Your task to perform on an android device: delete the emails in spam in the gmail app Image 0: 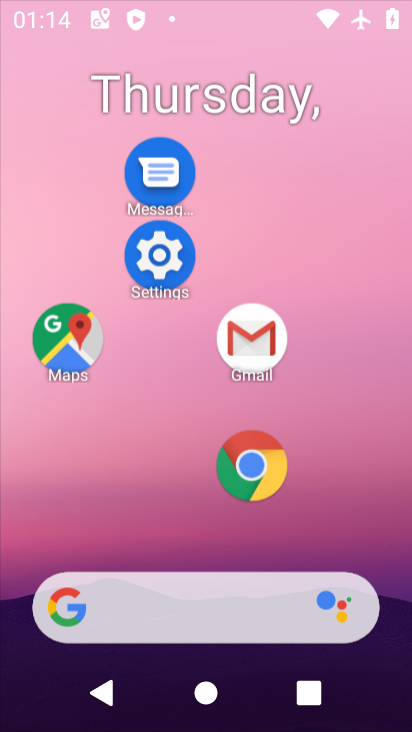
Step 0: click (203, 99)
Your task to perform on an android device: delete the emails in spam in the gmail app Image 1: 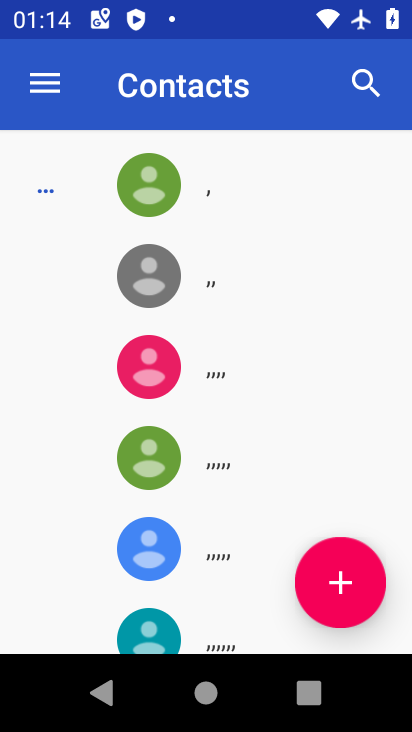
Step 1: drag from (221, 568) to (223, 193)
Your task to perform on an android device: delete the emails in spam in the gmail app Image 2: 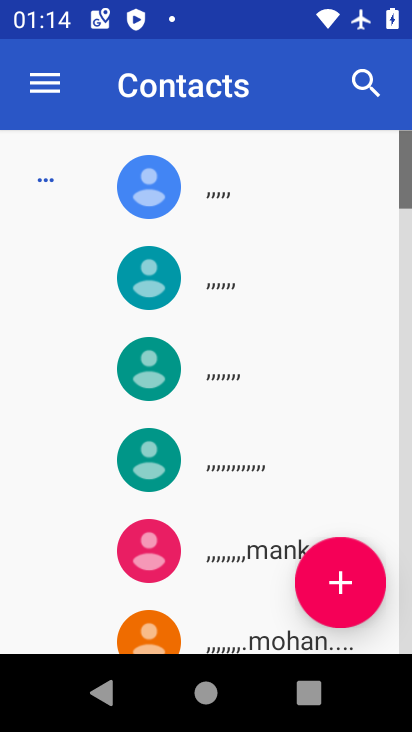
Step 2: press home button
Your task to perform on an android device: delete the emails in spam in the gmail app Image 3: 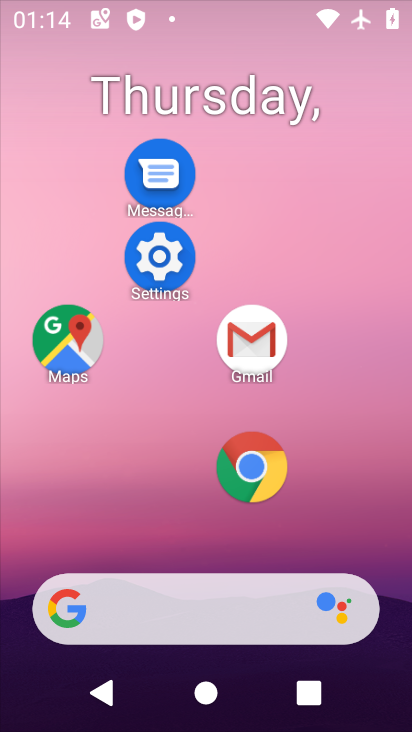
Step 3: drag from (225, 590) to (272, 118)
Your task to perform on an android device: delete the emails in spam in the gmail app Image 4: 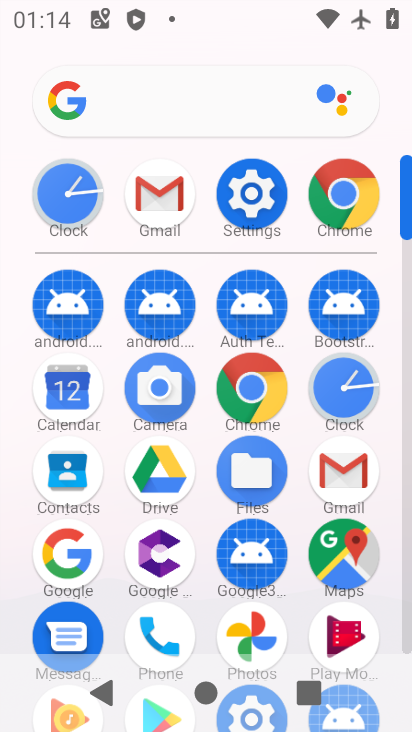
Step 4: click (349, 470)
Your task to perform on an android device: delete the emails in spam in the gmail app Image 5: 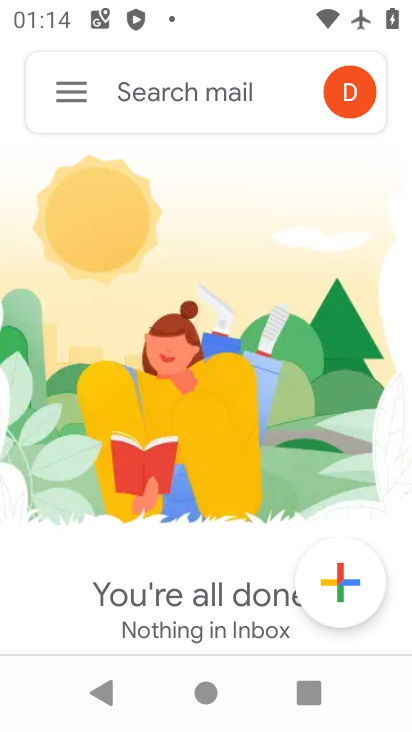
Step 5: drag from (200, 632) to (226, 182)
Your task to perform on an android device: delete the emails in spam in the gmail app Image 6: 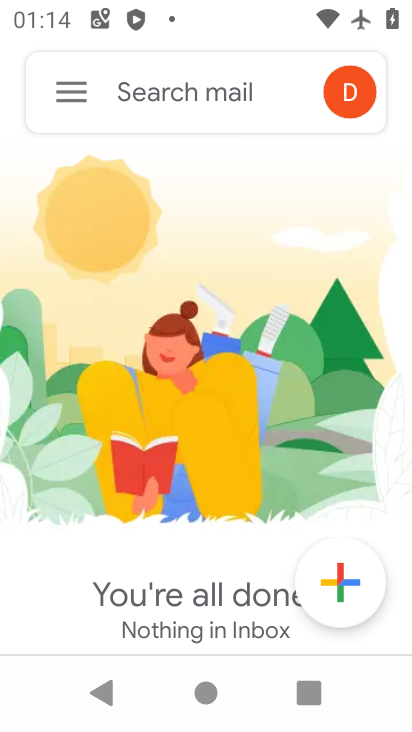
Step 6: drag from (171, 616) to (231, 208)
Your task to perform on an android device: delete the emails in spam in the gmail app Image 7: 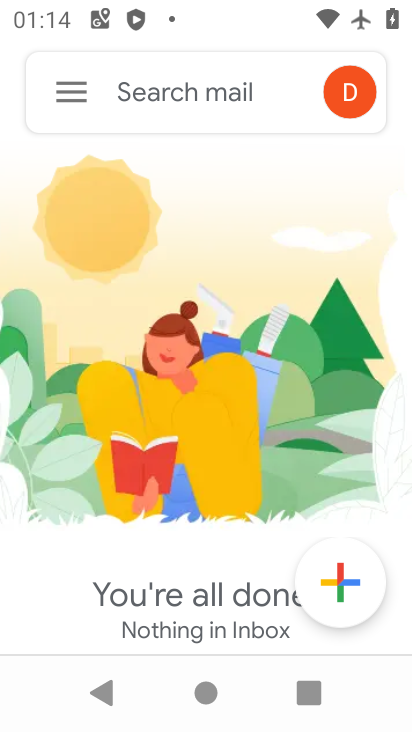
Step 7: click (75, 105)
Your task to perform on an android device: delete the emails in spam in the gmail app Image 8: 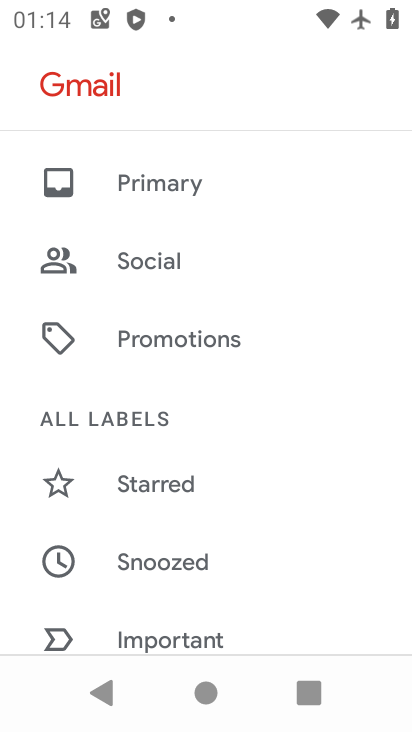
Step 8: drag from (153, 554) to (232, 125)
Your task to perform on an android device: delete the emails in spam in the gmail app Image 9: 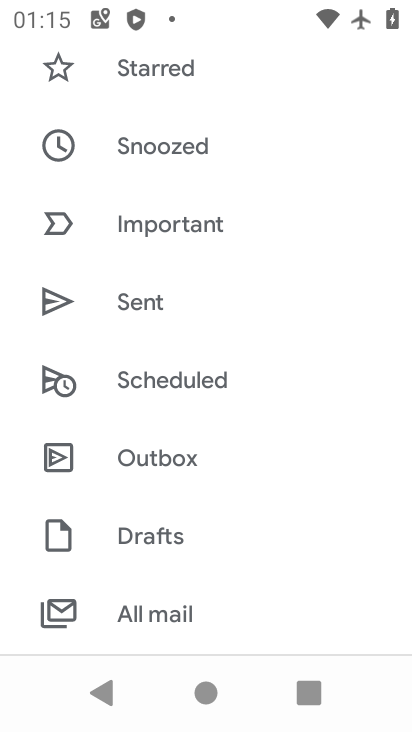
Step 9: drag from (194, 541) to (254, 169)
Your task to perform on an android device: delete the emails in spam in the gmail app Image 10: 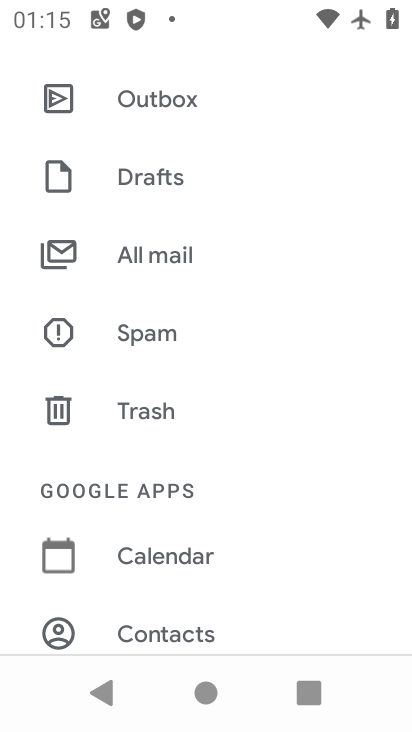
Step 10: drag from (234, 366) to (239, 235)
Your task to perform on an android device: delete the emails in spam in the gmail app Image 11: 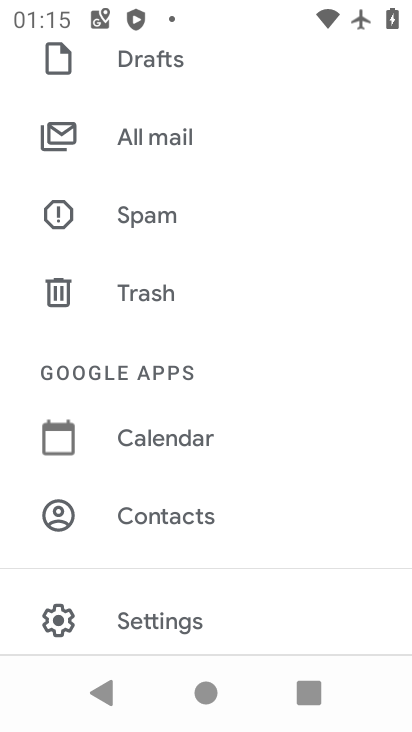
Step 11: click (171, 324)
Your task to perform on an android device: delete the emails in spam in the gmail app Image 12: 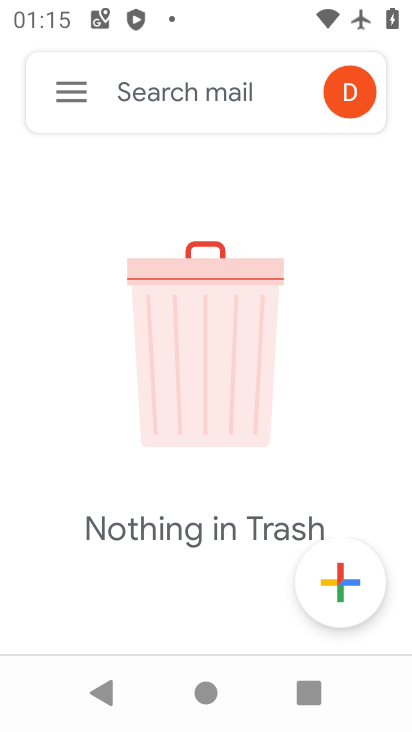
Step 12: task complete